Your task to perform on an android device: Open calendar and show me the fourth week of next month Image 0: 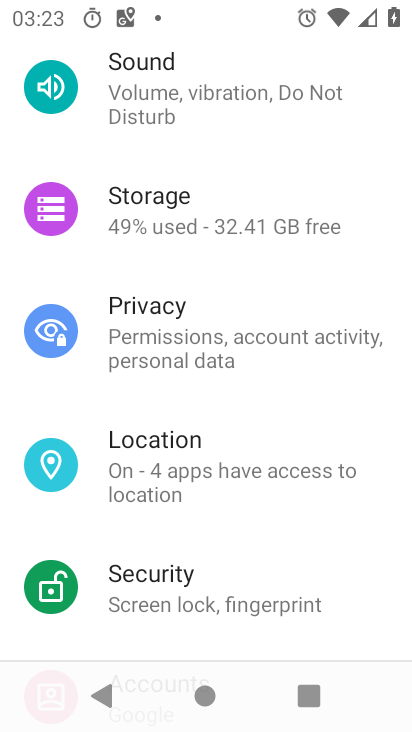
Step 0: press home button
Your task to perform on an android device: Open calendar and show me the fourth week of next month Image 1: 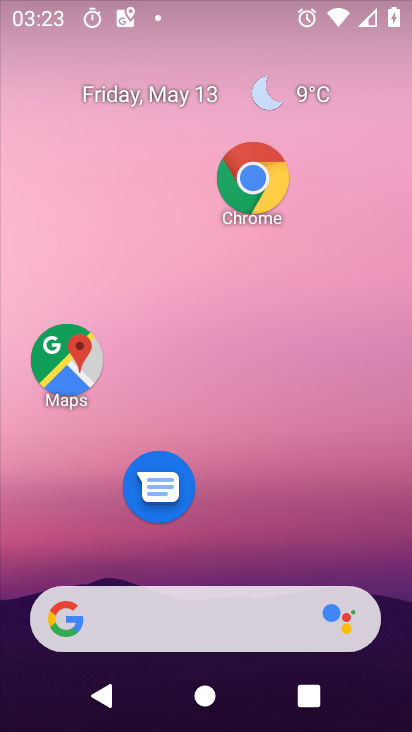
Step 1: drag from (309, 511) to (297, 76)
Your task to perform on an android device: Open calendar and show me the fourth week of next month Image 2: 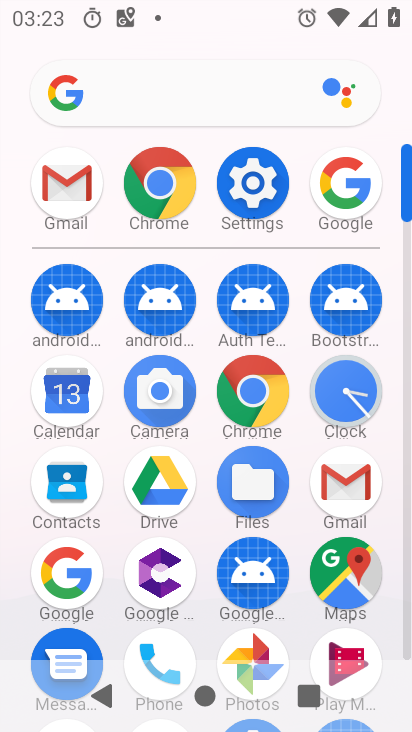
Step 2: click (63, 388)
Your task to perform on an android device: Open calendar and show me the fourth week of next month Image 3: 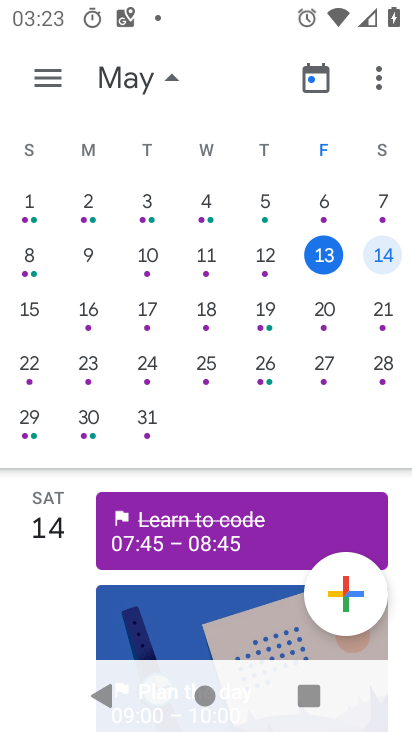
Step 3: drag from (361, 410) to (8, 399)
Your task to perform on an android device: Open calendar and show me the fourth week of next month Image 4: 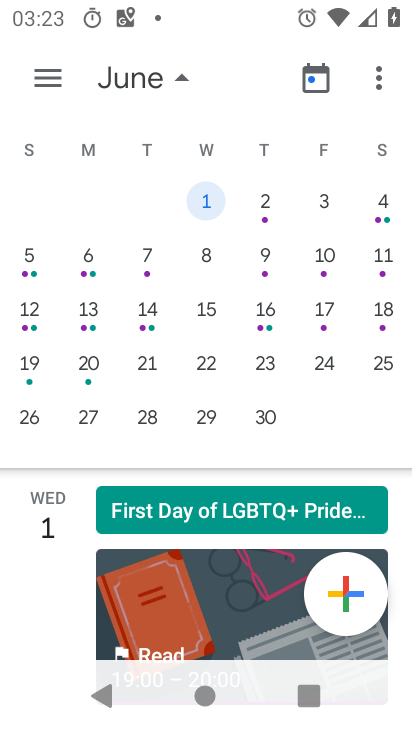
Step 4: click (208, 358)
Your task to perform on an android device: Open calendar and show me the fourth week of next month Image 5: 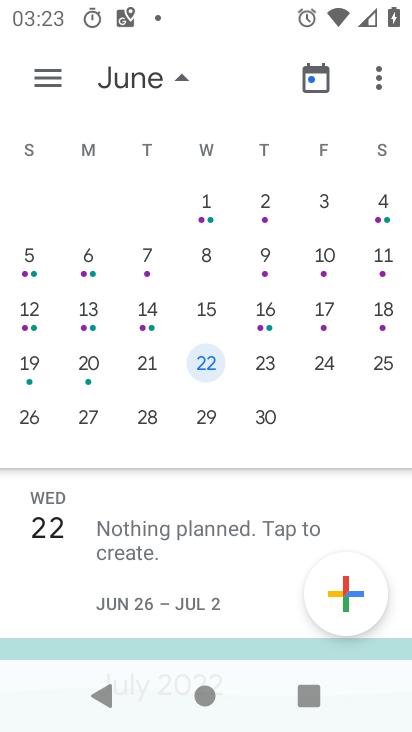
Step 5: task complete